Your task to perform on an android device: Open Chrome and go to settings Image 0: 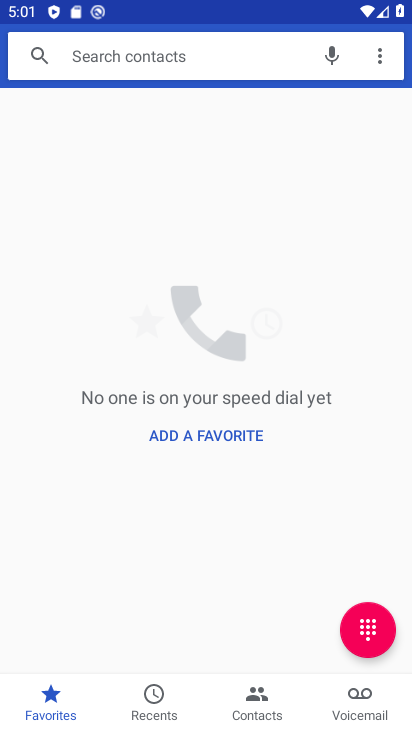
Step 0: press home button
Your task to perform on an android device: Open Chrome and go to settings Image 1: 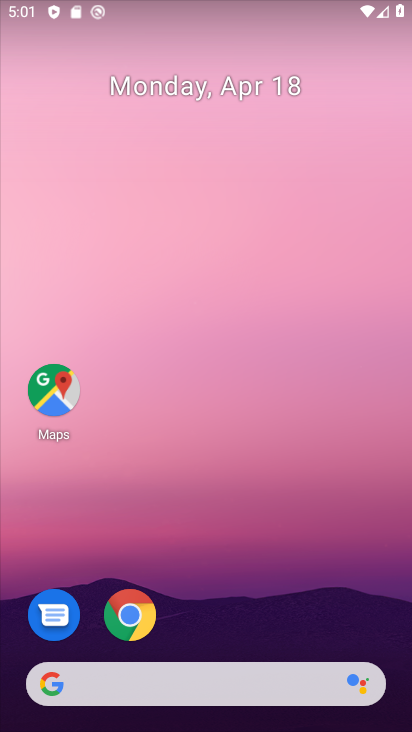
Step 1: click (126, 618)
Your task to perform on an android device: Open Chrome and go to settings Image 2: 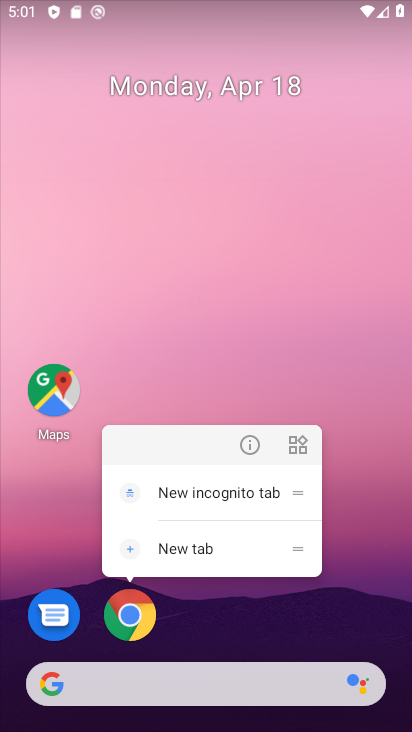
Step 2: click (247, 444)
Your task to perform on an android device: Open Chrome and go to settings Image 3: 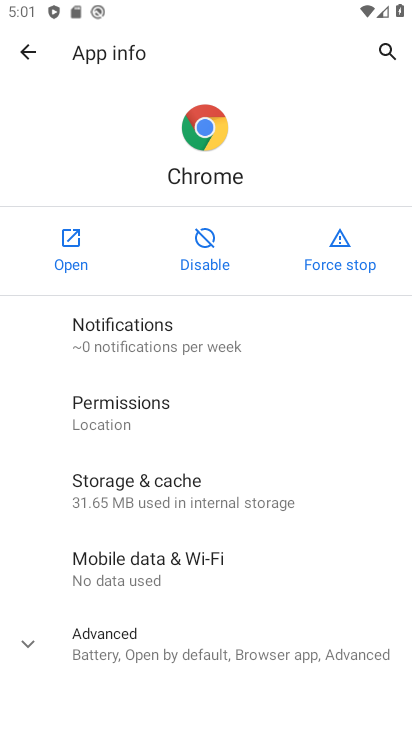
Step 3: task complete